Your task to perform on an android device: toggle javascript in the chrome app Image 0: 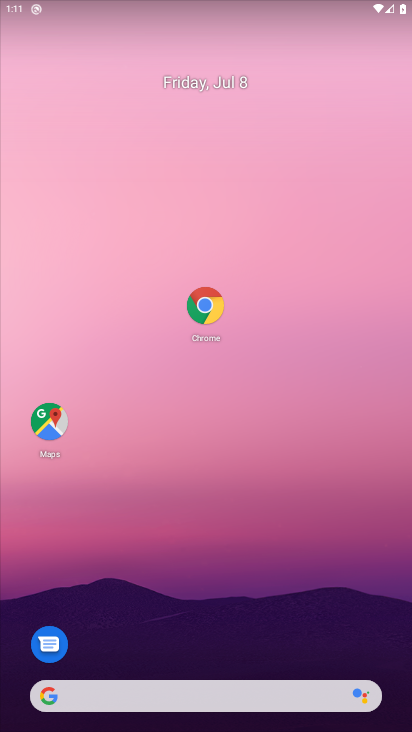
Step 0: click (215, 305)
Your task to perform on an android device: toggle javascript in the chrome app Image 1: 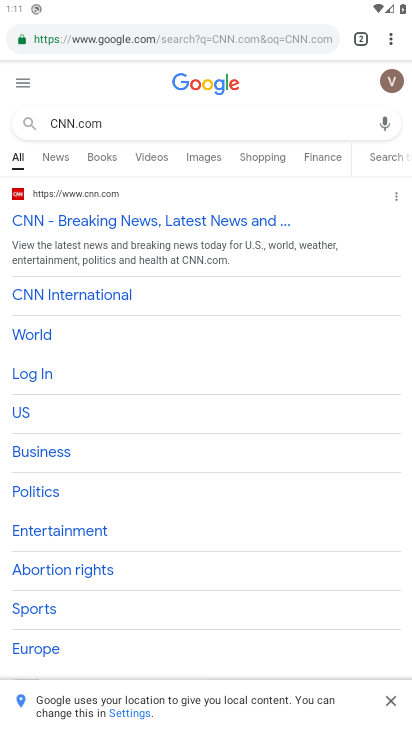
Step 1: click (390, 35)
Your task to perform on an android device: toggle javascript in the chrome app Image 2: 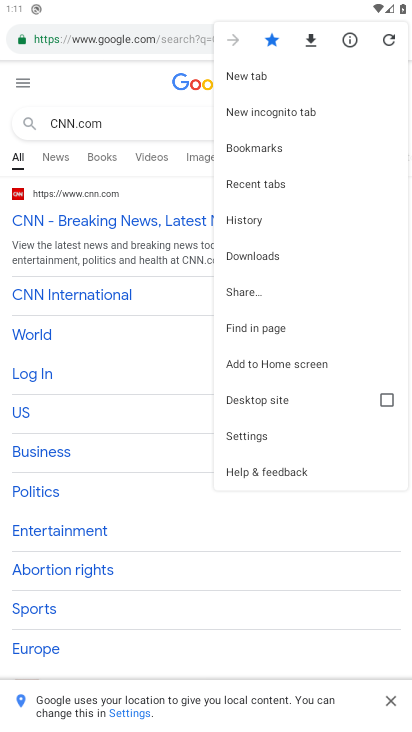
Step 2: click (237, 441)
Your task to perform on an android device: toggle javascript in the chrome app Image 3: 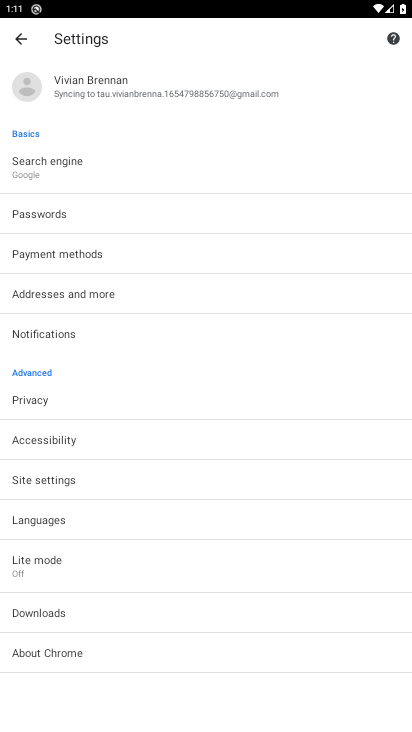
Step 3: click (38, 481)
Your task to perform on an android device: toggle javascript in the chrome app Image 4: 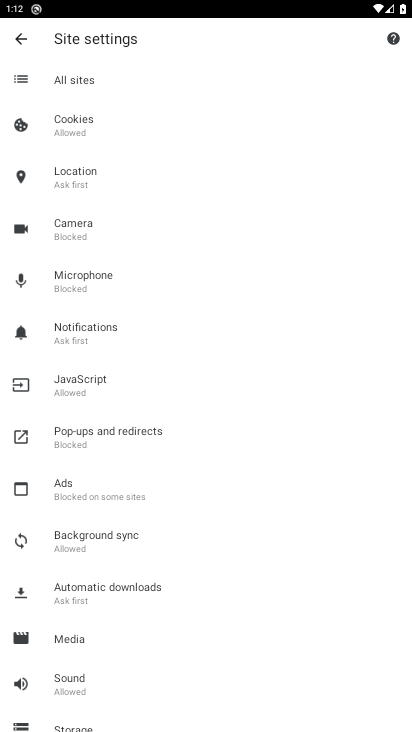
Step 4: click (90, 385)
Your task to perform on an android device: toggle javascript in the chrome app Image 5: 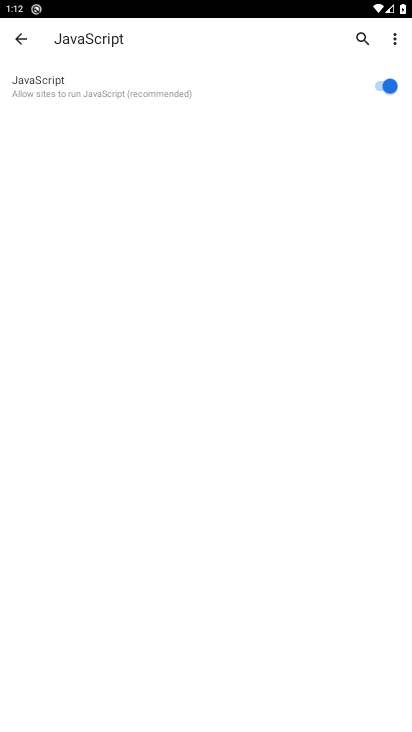
Step 5: click (377, 86)
Your task to perform on an android device: toggle javascript in the chrome app Image 6: 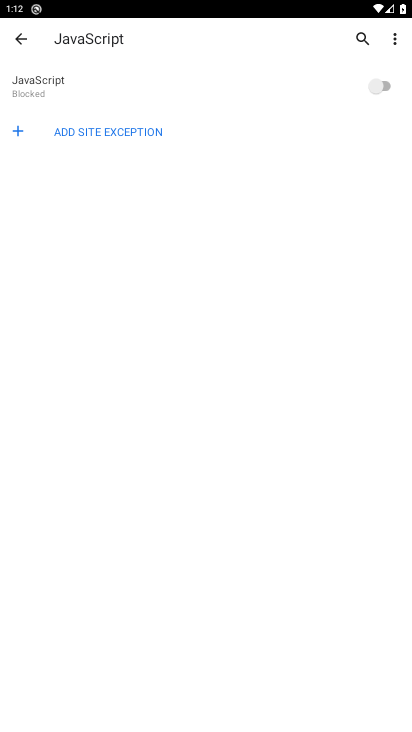
Step 6: task complete